Your task to perform on an android device: Add usb-a to the cart on ebay, then select checkout. Image 0: 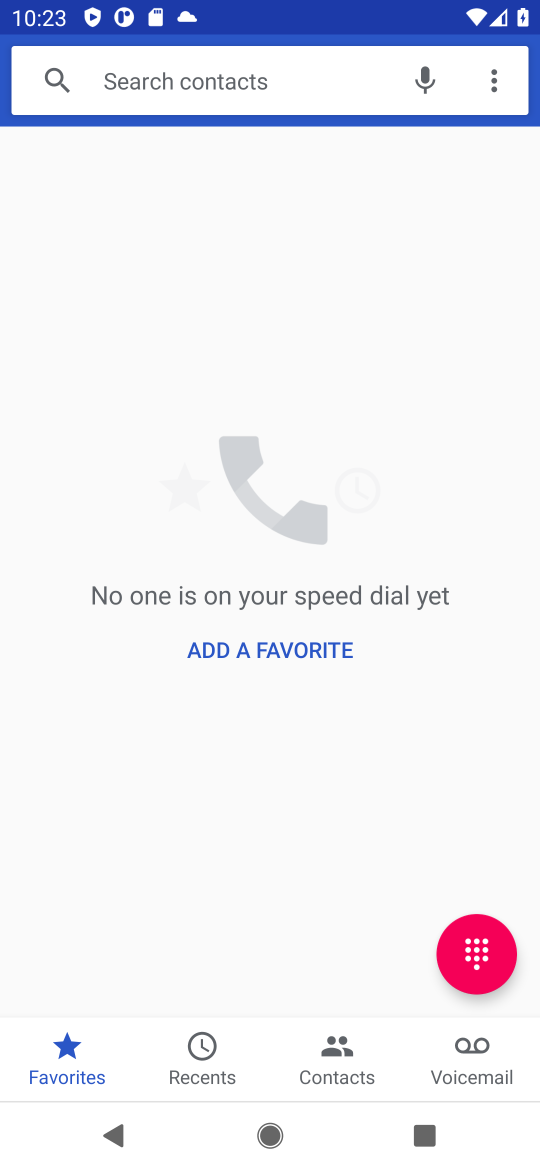
Step 0: press home button
Your task to perform on an android device: Add usb-a to the cart on ebay, then select checkout. Image 1: 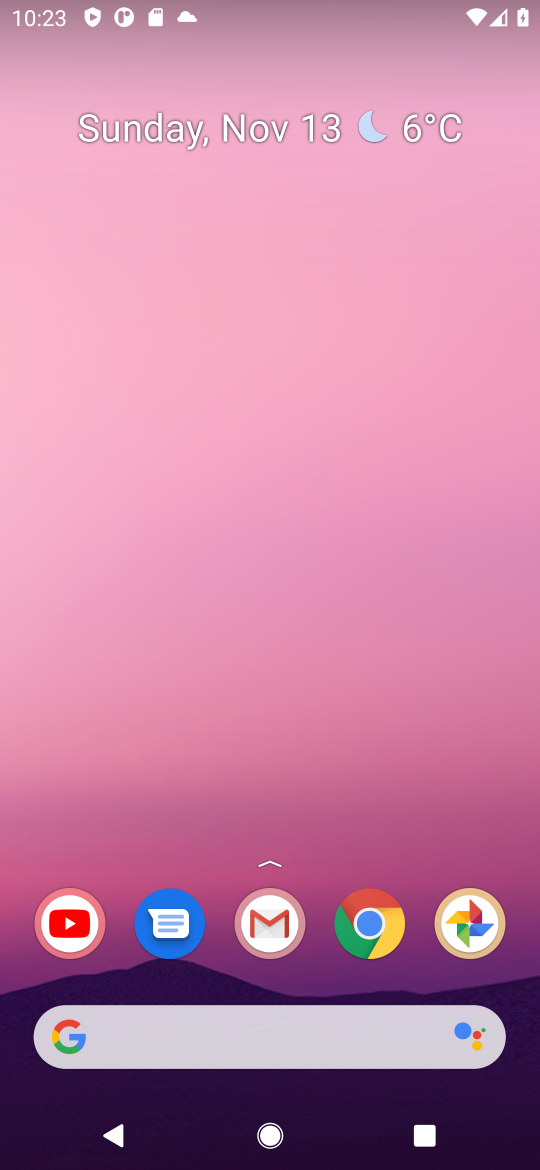
Step 1: click (366, 931)
Your task to perform on an android device: Add usb-a to the cart on ebay, then select checkout. Image 2: 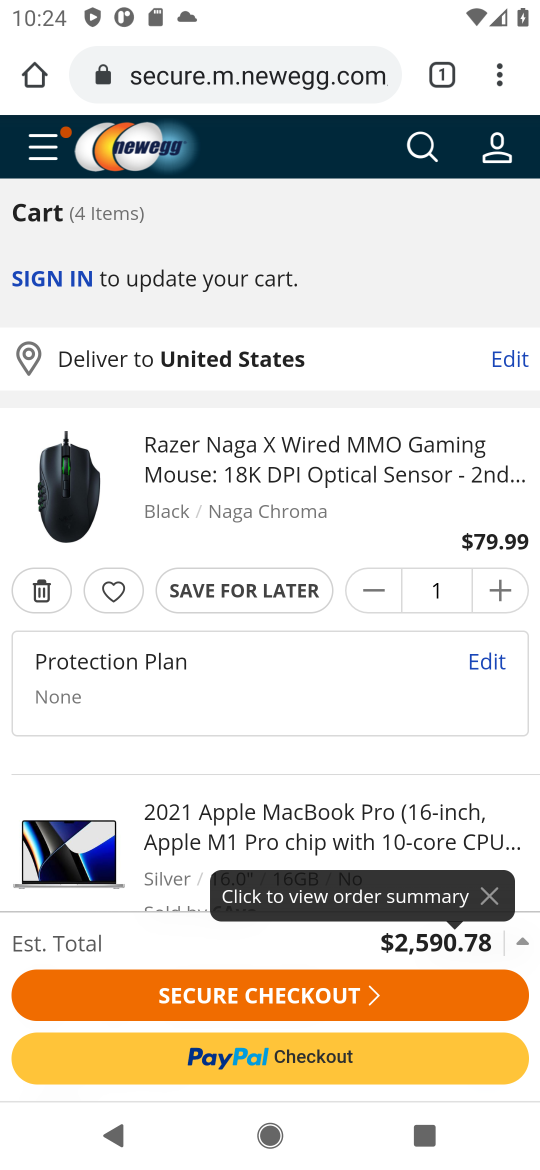
Step 2: click (297, 62)
Your task to perform on an android device: Add usb-a to the cart on ebay, then select checkout. Image 3: 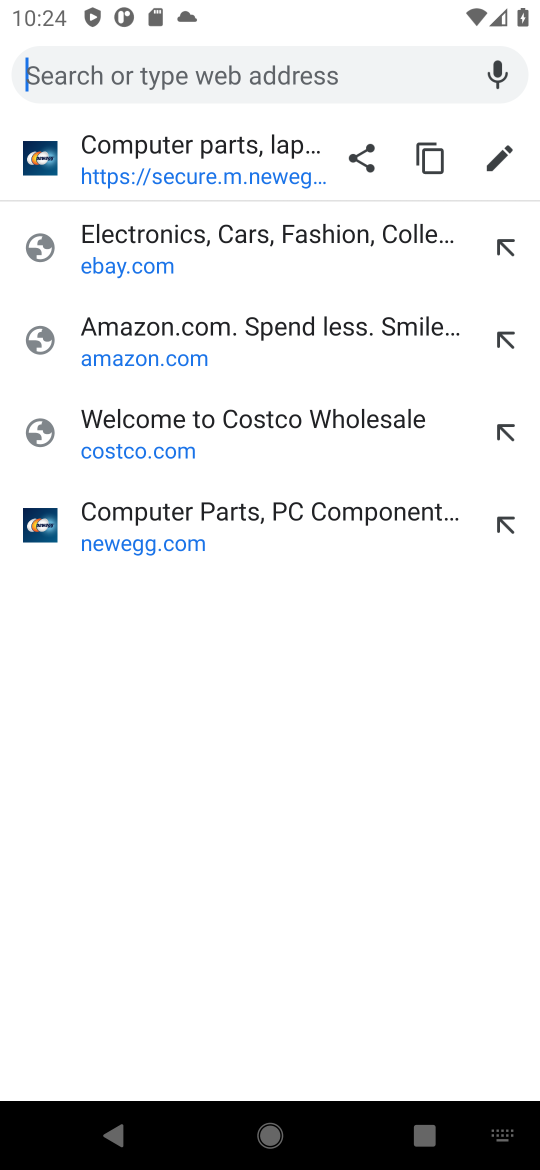
Step 3: click (160, 230)
Your task to perform on an android device: Add usb-a to the cart on ebay, then select checkout. Image 4: 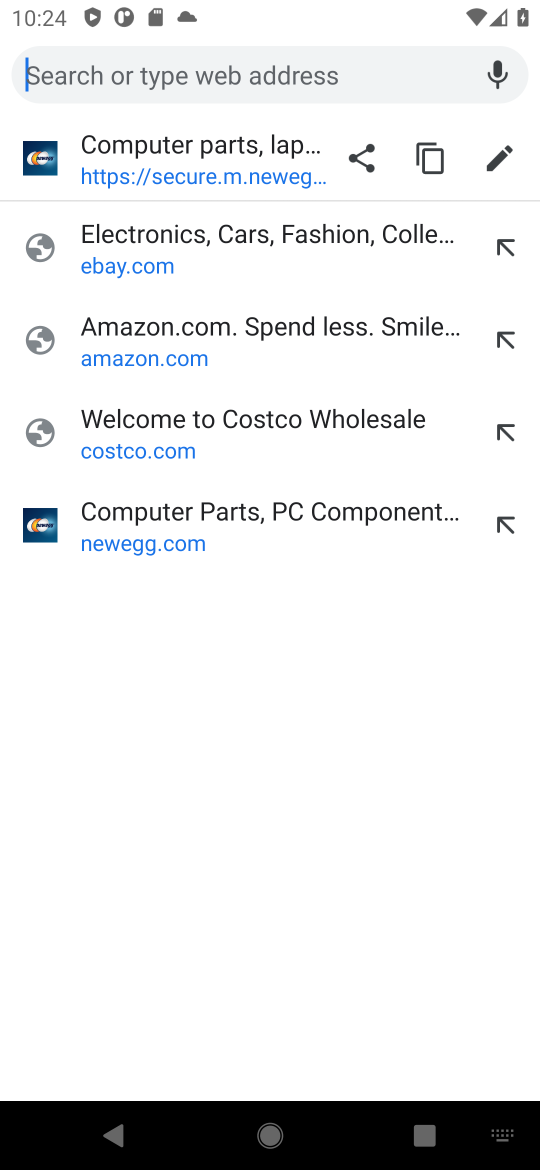
Step 4: type "usb-a "
Your task to perform on an android device: Add usb-a to the cart on ebay, then select checkout. Image 5: 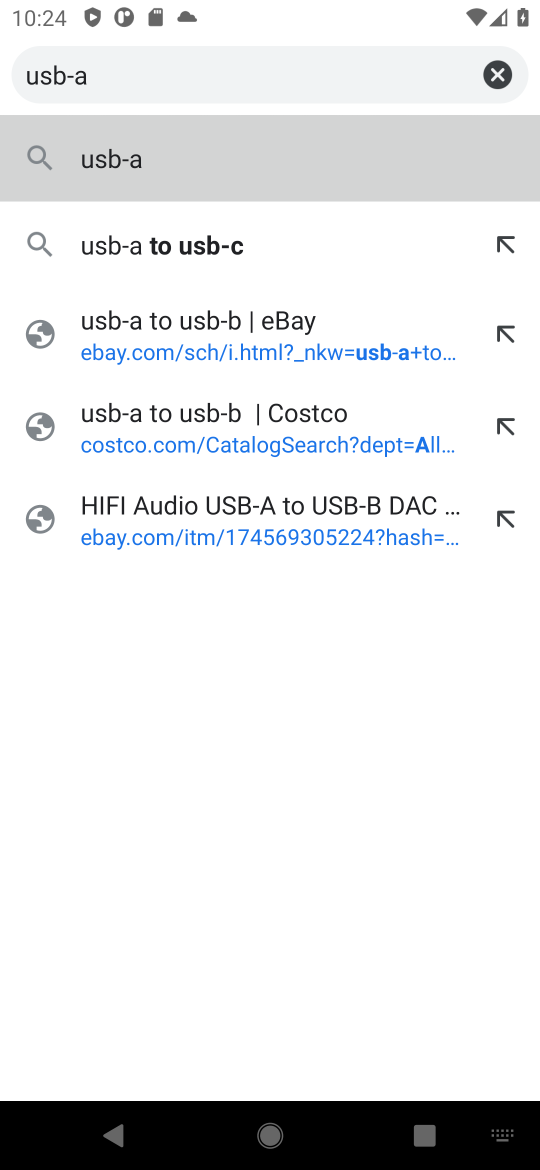
Step 5: press enter
Your task to perform on an android device: Add usb-a to the cart on ebay, then select checkout. Image 6: 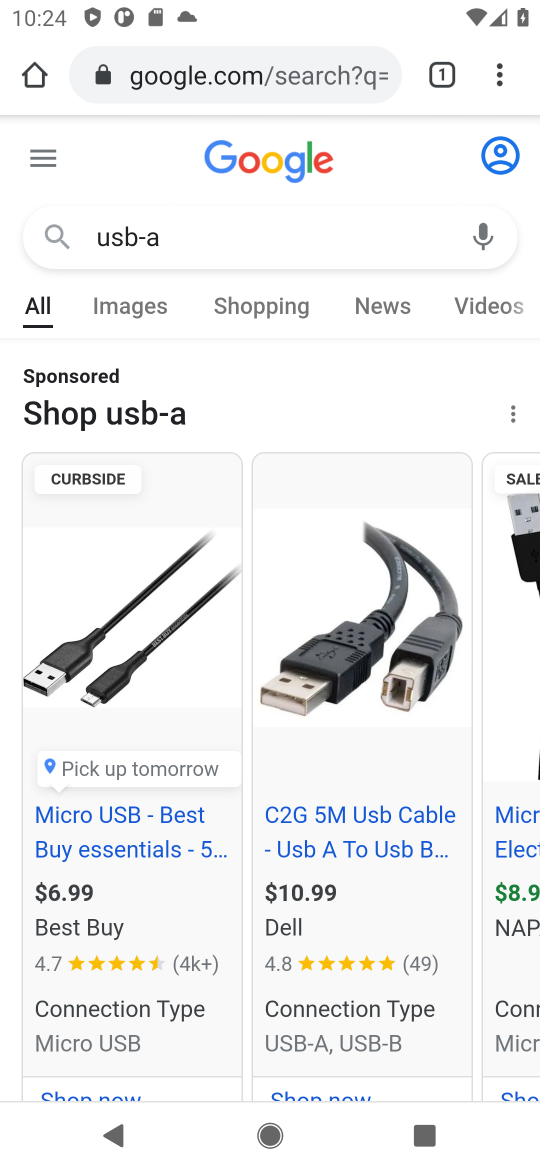
Step 6: click (289, 66)
Your task to perform on an android device: Add usb-a to the cart on ebay, then select checkout. Image 7: 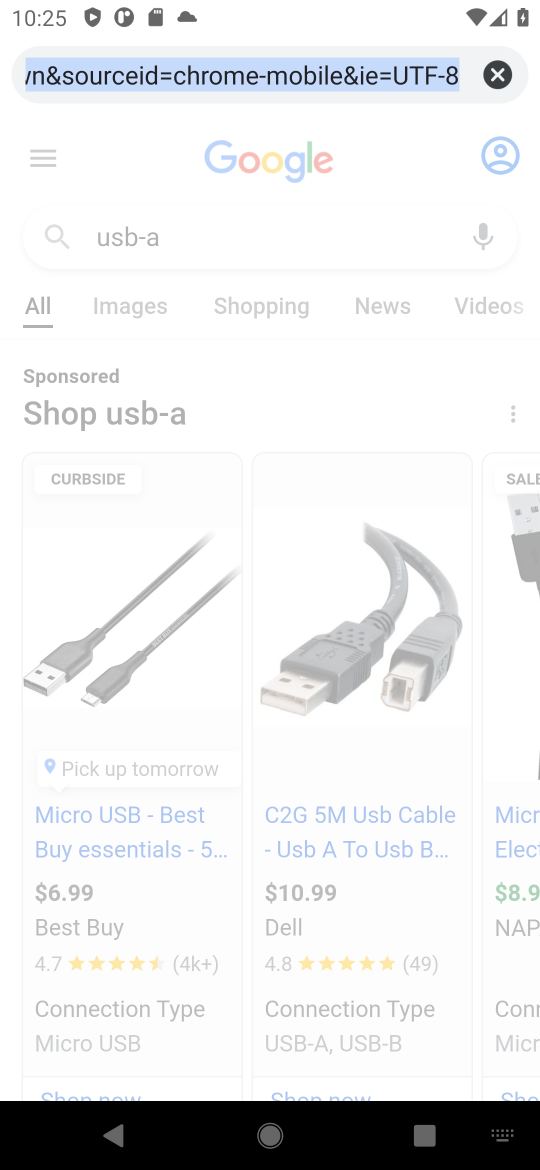
Step 7: click (498, 66)
Your task to perform on an android device: Add usb-a to the cart on ebay, then select checkout. Image 8: 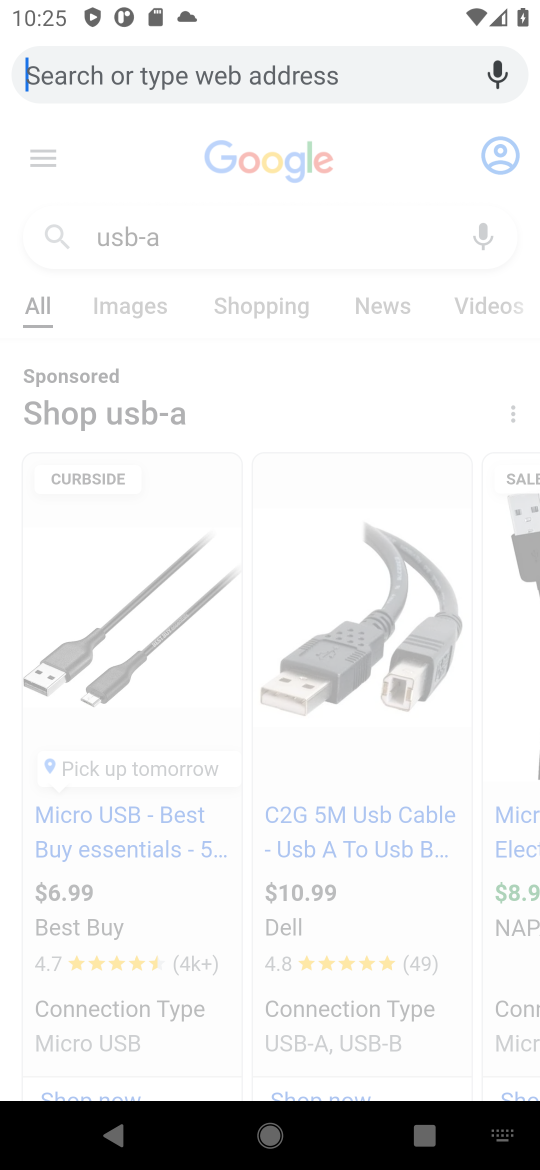
Step 8: click (281, 78)
Your task to perform on an android device: Add usb-a to the cart on ebay, then select checkout. Image 9: 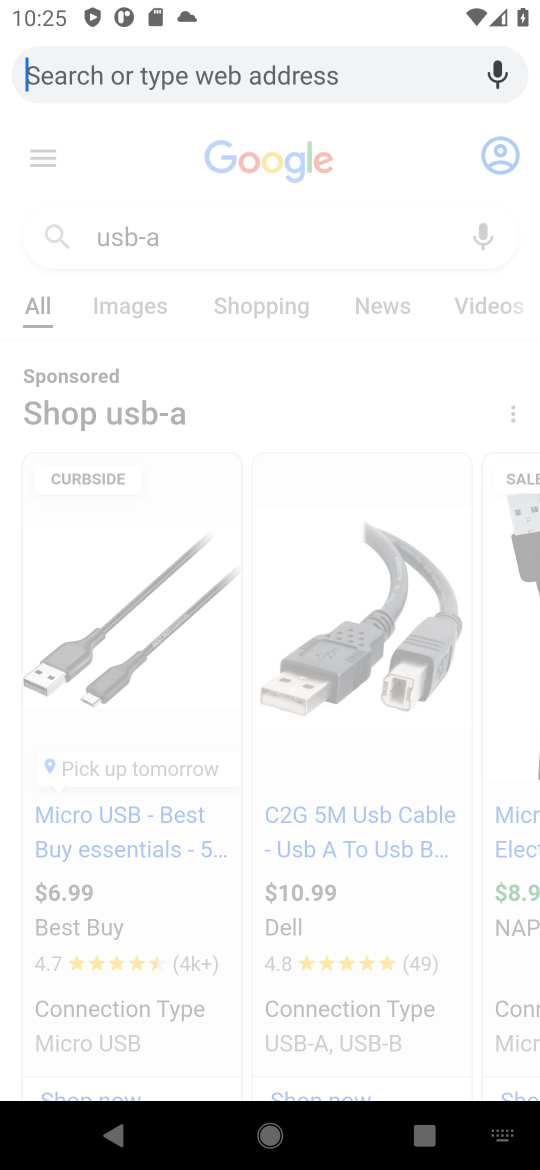
Step 9: press back button
Your task to perform on an android device: Add usb-a to the cart on ebay, then select checkout. Image 10: 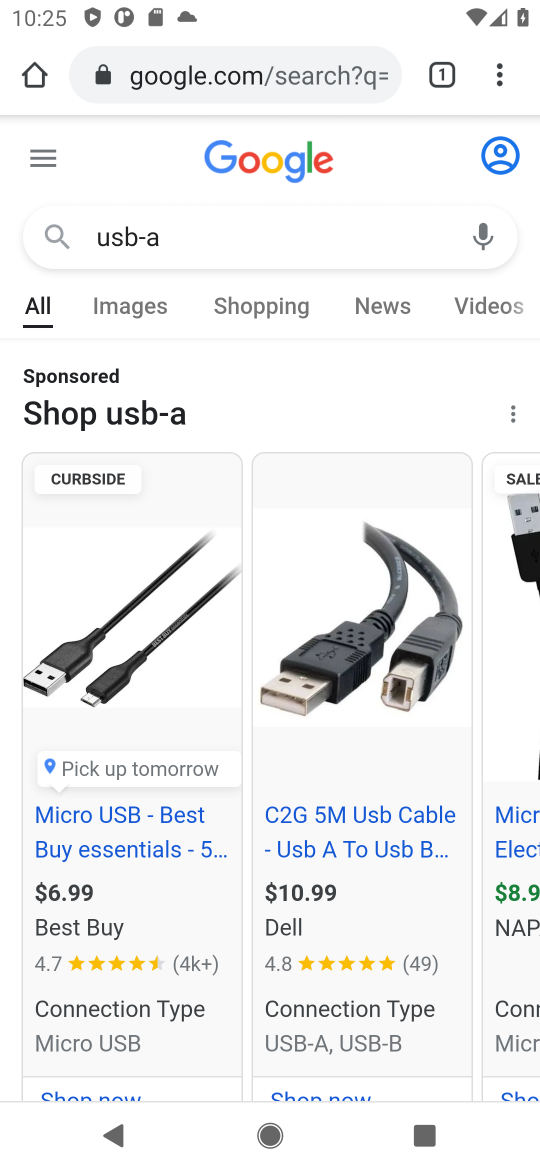
Step 10: press back button
Your task to perform on an android device: Add usb-a to the cart on ebay, then select checkout. Image 11: 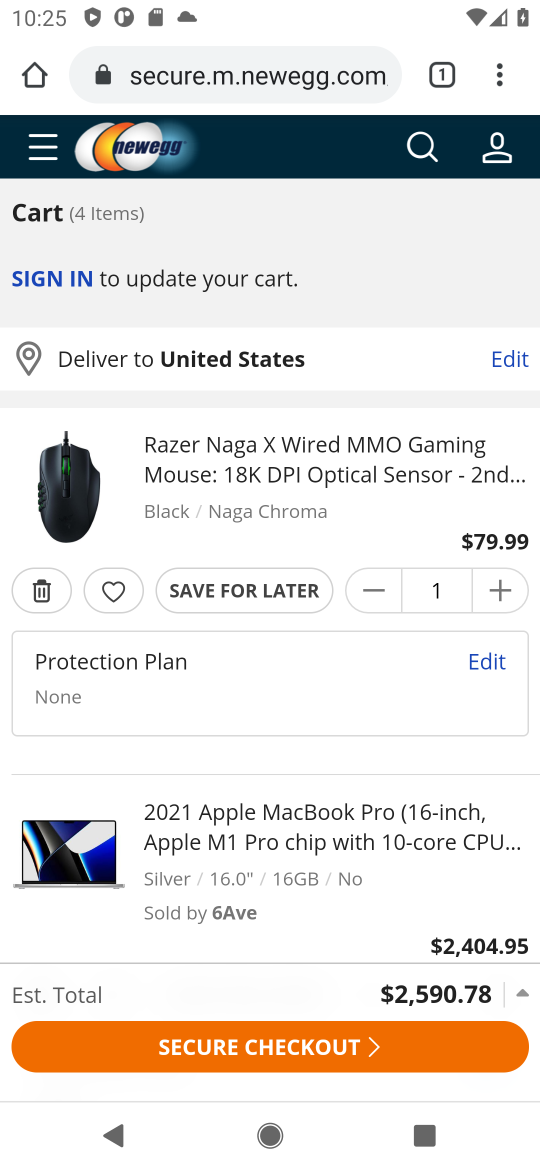
Step 11: click (281, 72)
Your task to perform on an android device: Add usb-a to the cart on ebay, then select checkout. Image 12: 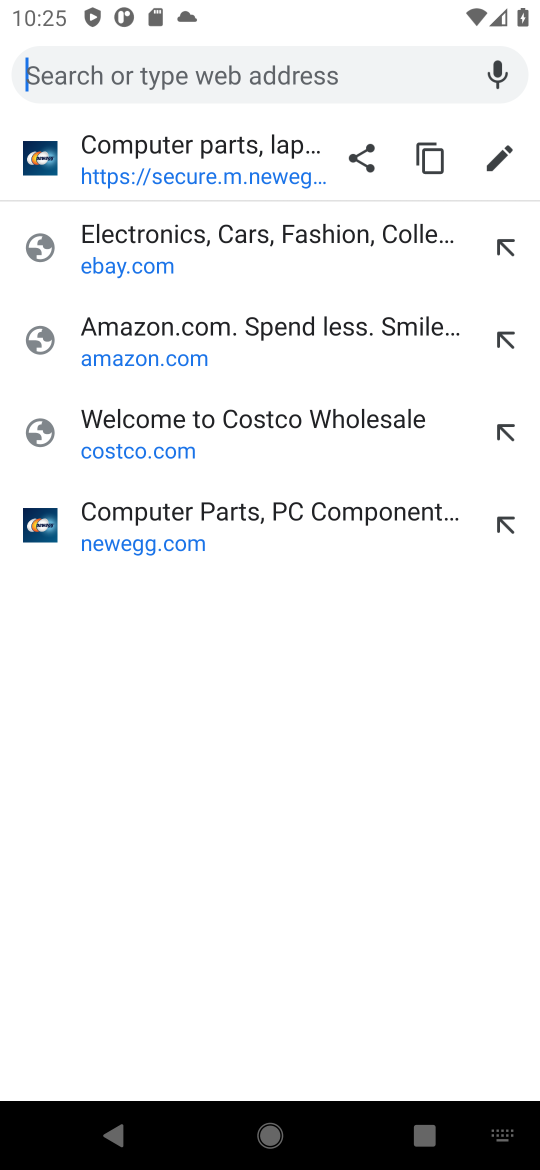
Step 12: click (202, 243)
Your task to perform on an android device: Add usb-a to the cart on ebay, then select checkout. Image 13: 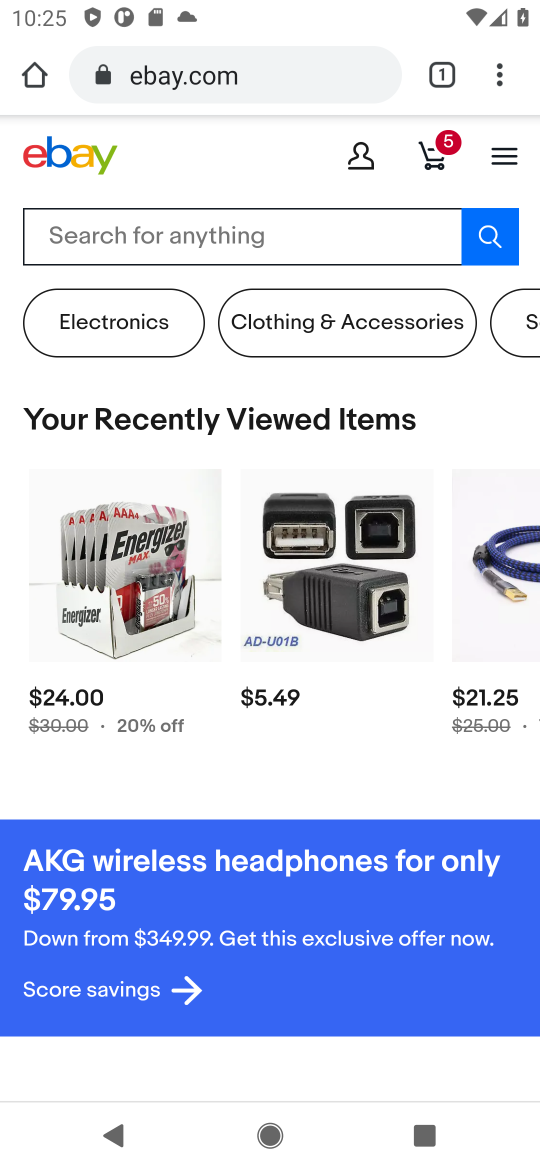
Step 13: click (302, 238)
Your task to perform on an android device: Add usb-a to the cart on ebay, then select checkout. Image 14: 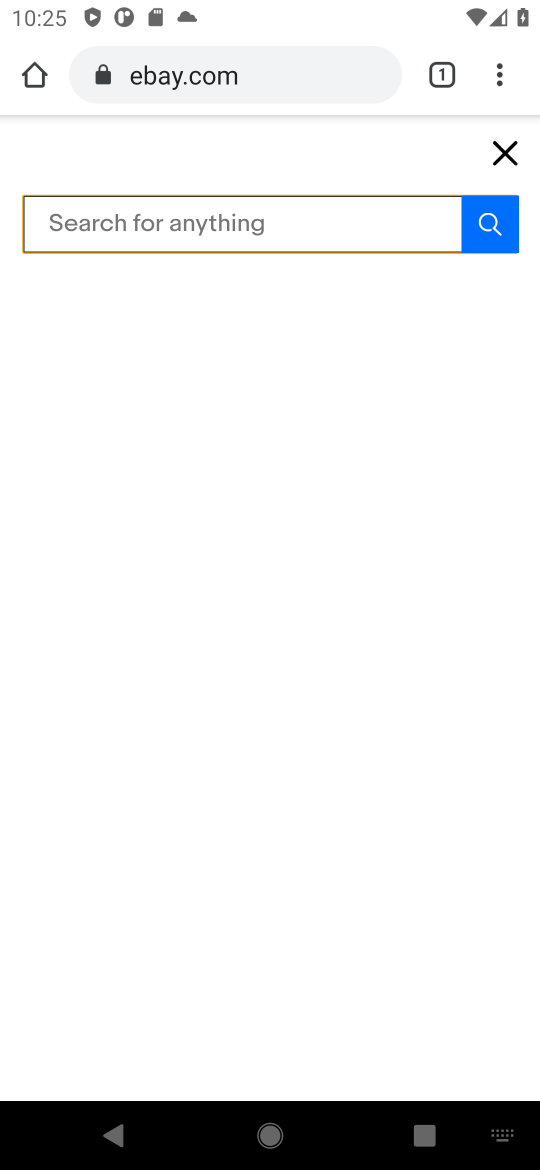
Step 14: type "usb-a"
Your task to perform on an android device: Add usb-a to the cart on ebay, then select checkout. Image 15: 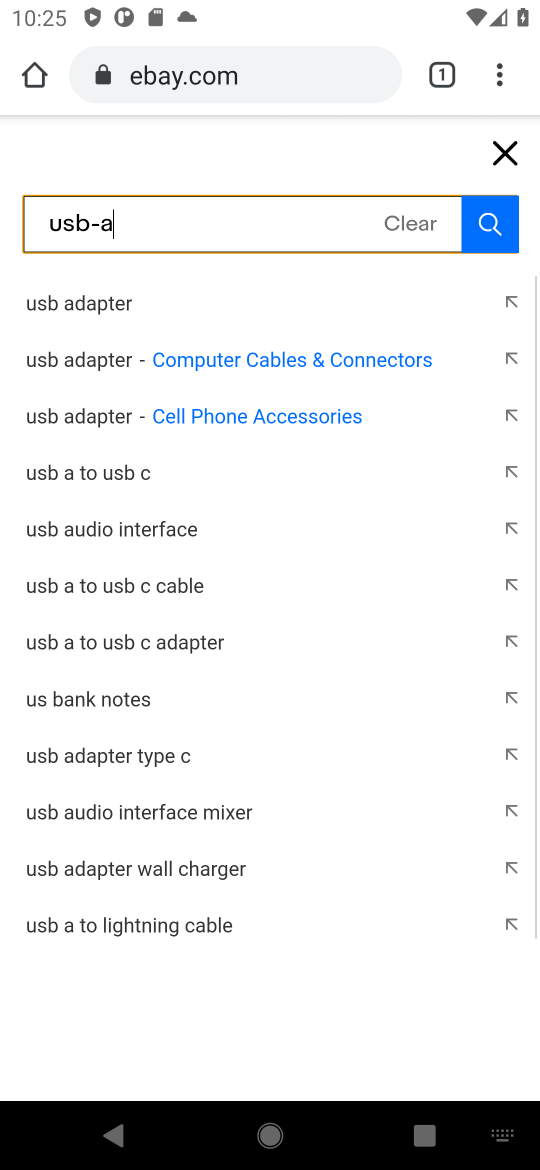
Step 15: press enter
Your task to perform on an android device: Add usb-a to the cart on ebay, then select checkout. Image 16: 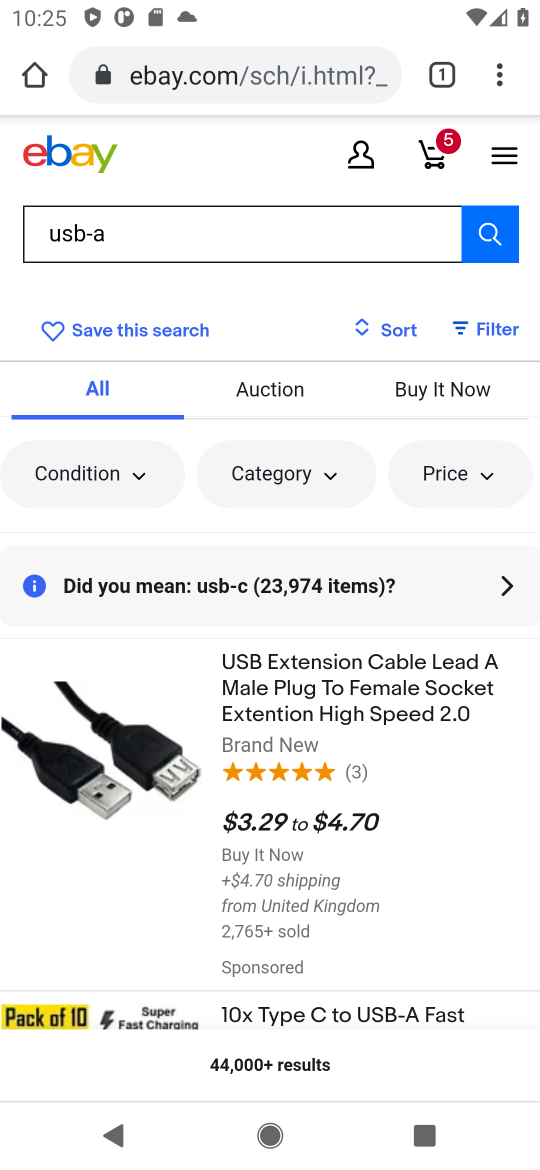
Step 16: drag from (430, 948) to (481, 509)
Your task to perform on an android device: Add usb-a to the cart on ebay, then select checkout. Image 17: 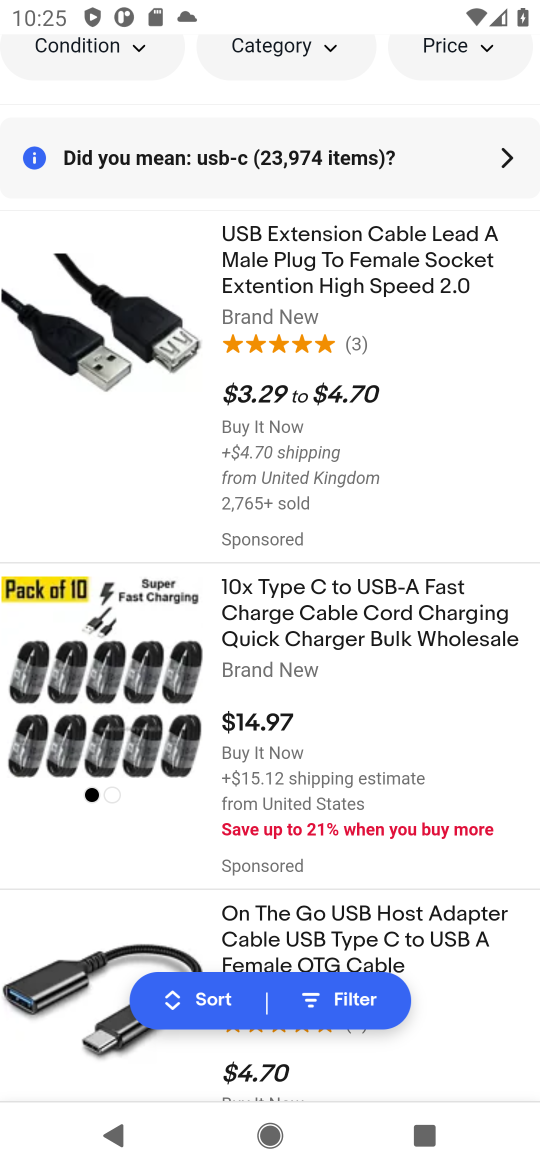
Step 17: click (100, 729)
Your task to perform on an android device: Add usb-a to the cart on ebay, then select checkout. Image 18: 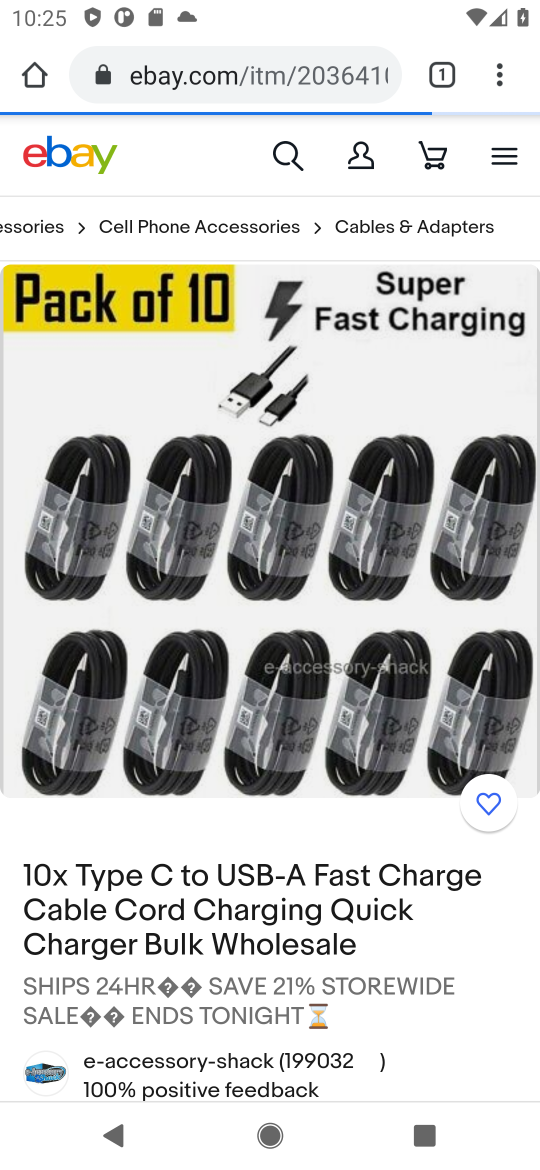
Step 18: press back button
Your task to perform on an android device: Add usb-a to the cart on ebay, then select checkout. Image 19: 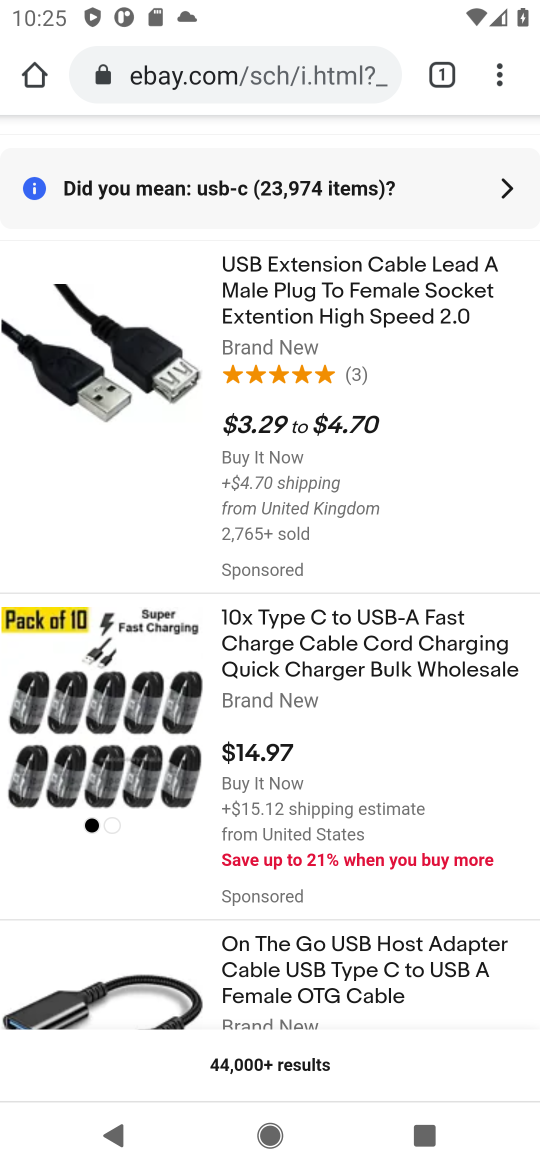
Step 19: drag from (420, 939) to (456, 554)
Your task to perform on an android device: Add usb-a to the cart on ebay, then select checkout. Image 20: 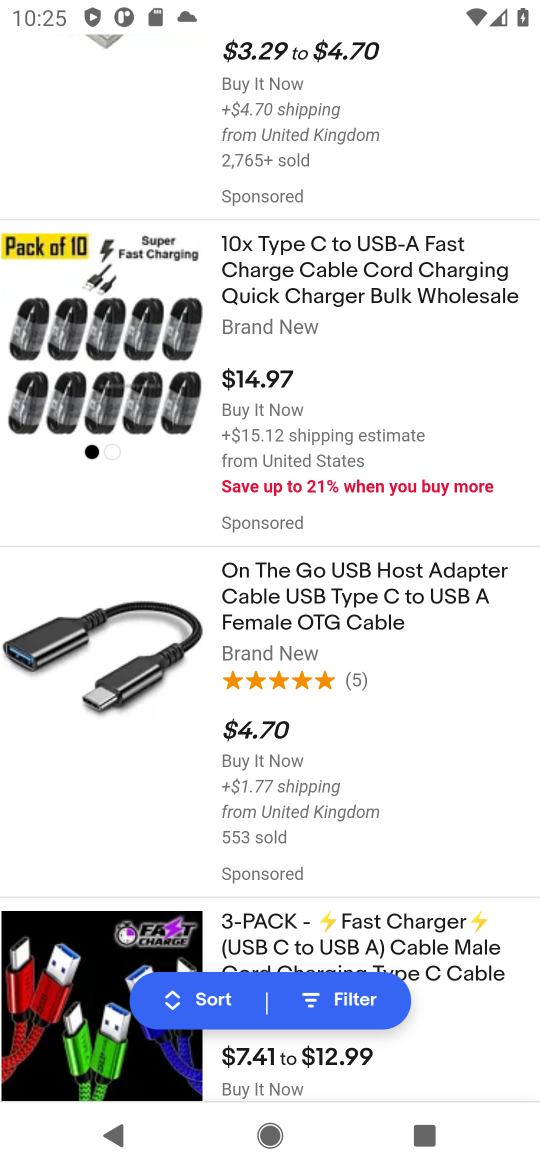
Step 20: drag from (475, 852) to (475, 586)
Your task to perform on an android device: Add usb-a to the cart on ebay, then select checkout. Image 21: 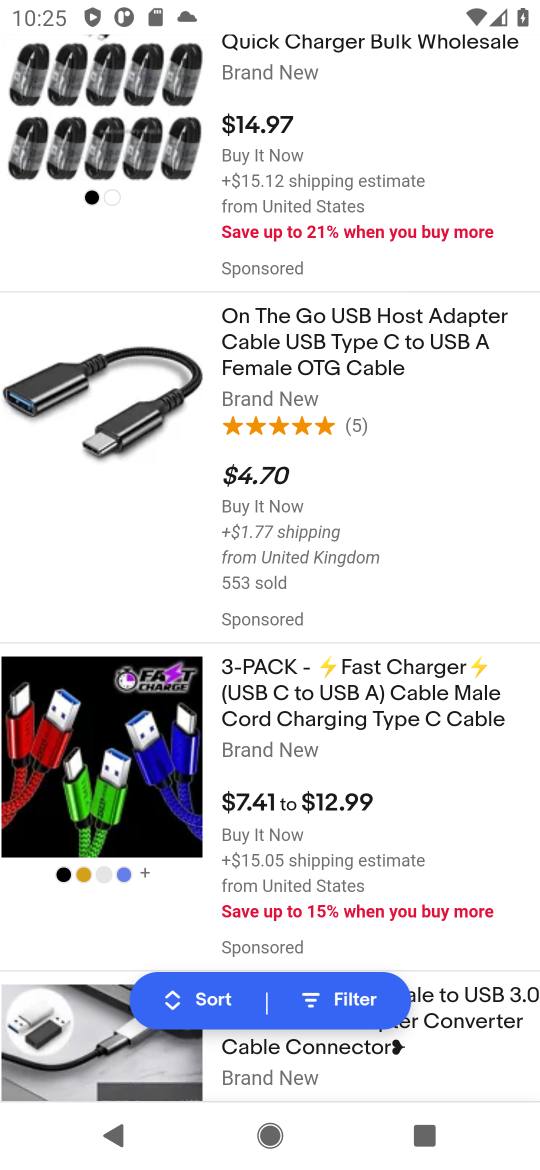
Step 21: drag from (449, 732) to (456, 448)
Your task to perform on an android device: Add usb-a to the cart on ebay, then select checkout. Image 22: 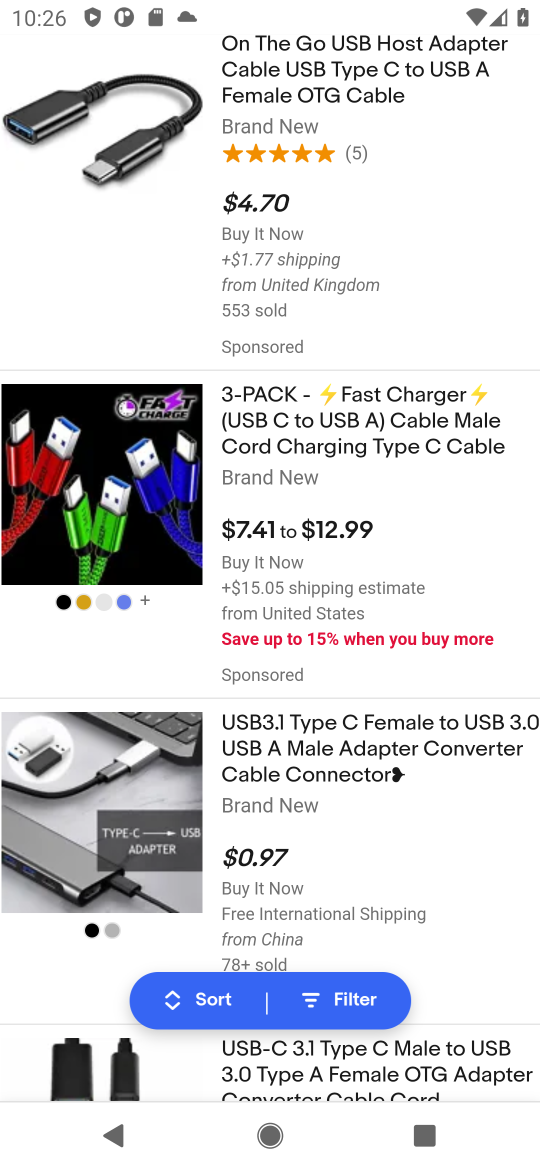
Step 22: drag from (429, 511) to (461, 930)
Your task to perform on an android device: Add usb-a to the cart on ebay, then select checkout. Image 23: 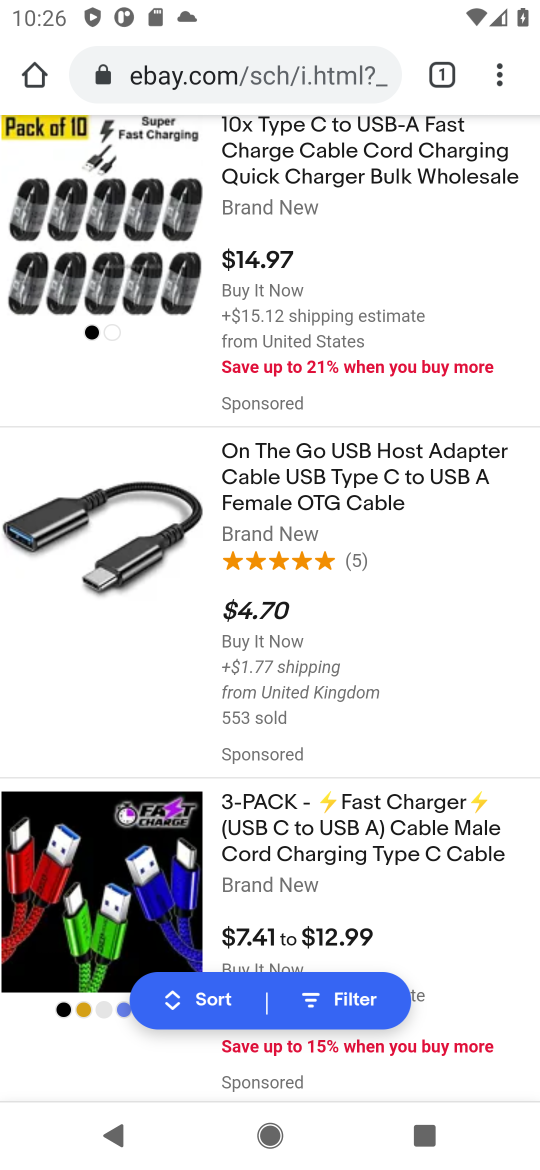
Step 23: drag from (422, 756) to (489, 299)
Your task to perform on an android device: Add usb-a to the cart on ebay, then select checkout. Image 24: 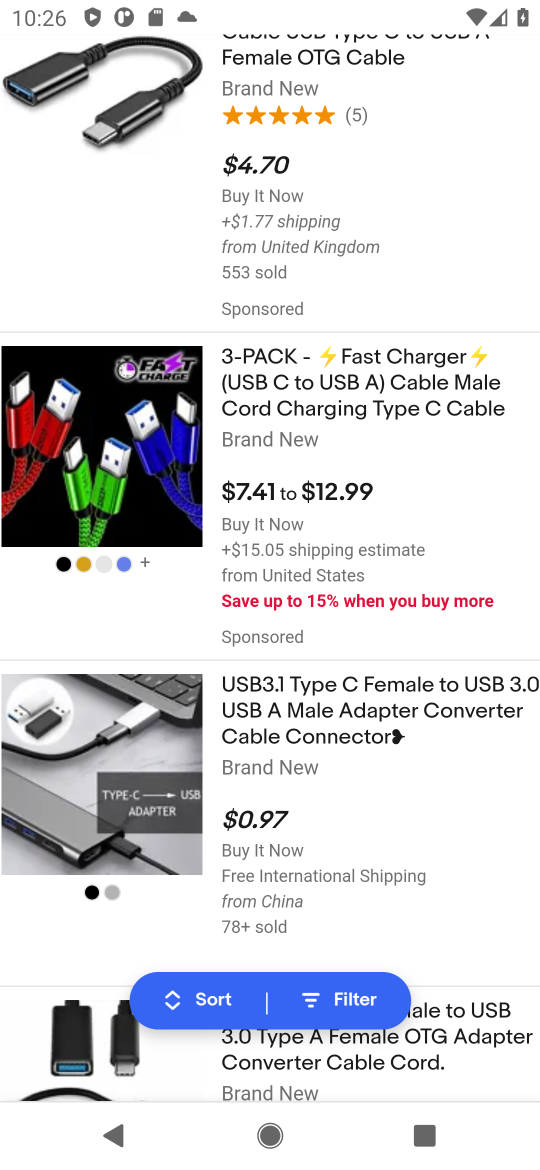
Step 24: drag from (475, 814) to (490, 455)
Your task to perform on an android device: Add usb-a to the cart on ebay, then select checkout. Image 25: 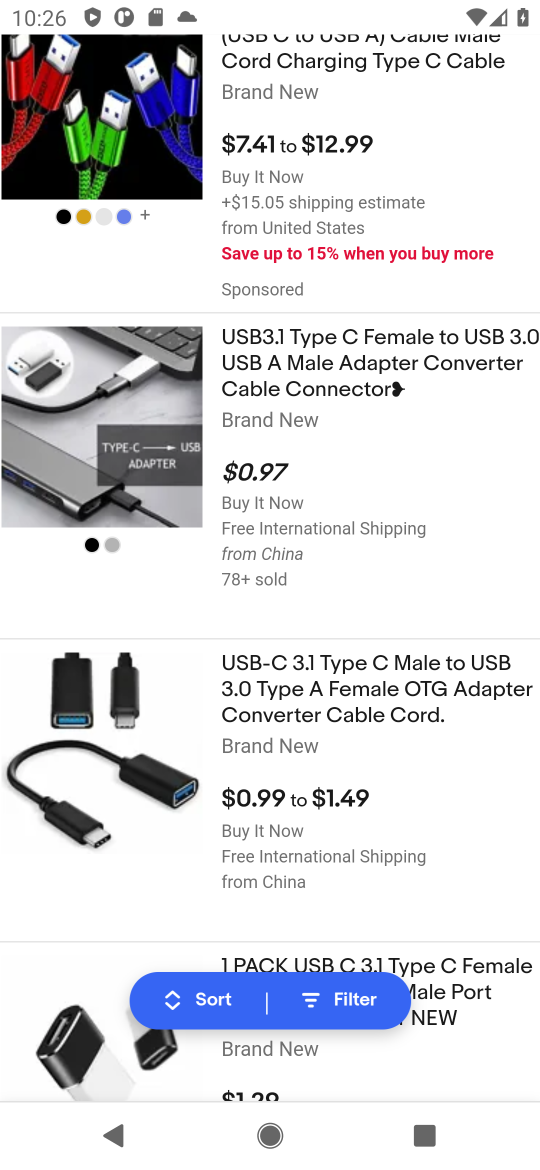
Step 25: drag from (469, 853) to (488, 587)
Your task to perform on an android device: Add usb-a to the cart on ebay, then select checkout. Image 26: 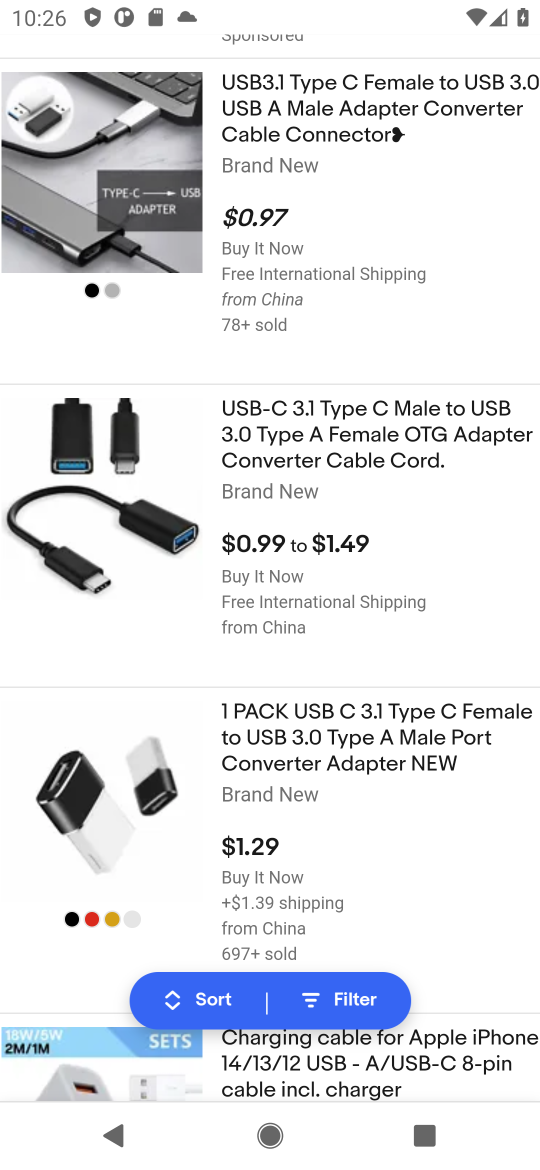
Step 26: drag from (436, 901) to (458, 458)
Your task to perform on an android device: Add usb-a to the cart on ebay, then select checkout. Image 27: 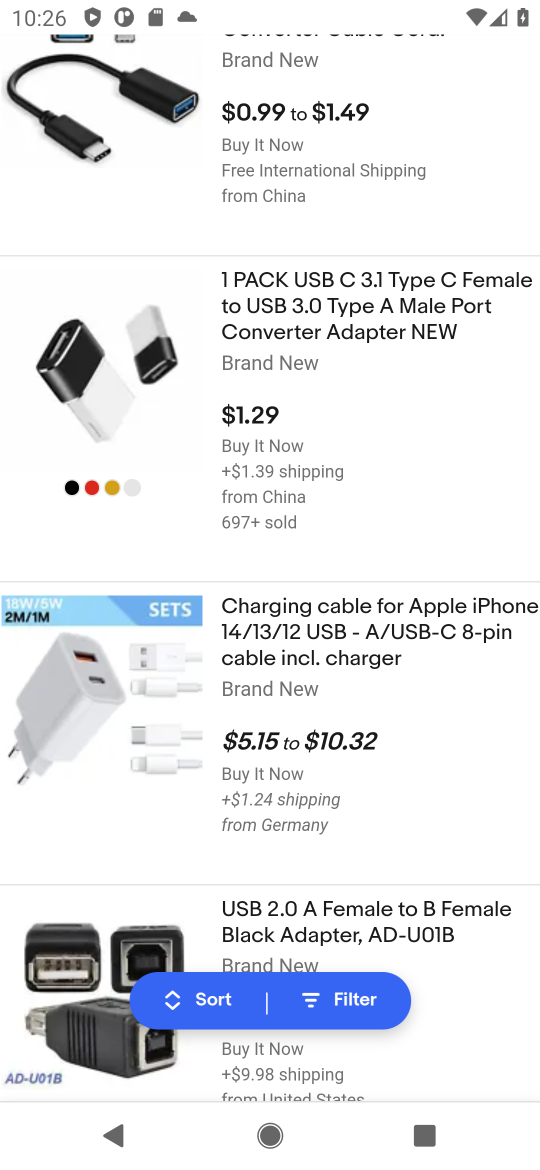
Step 27: click (113, 954)
Your task to perform on an android device: Add usb-a to the cart on ebay, then select checkout. Image 28: 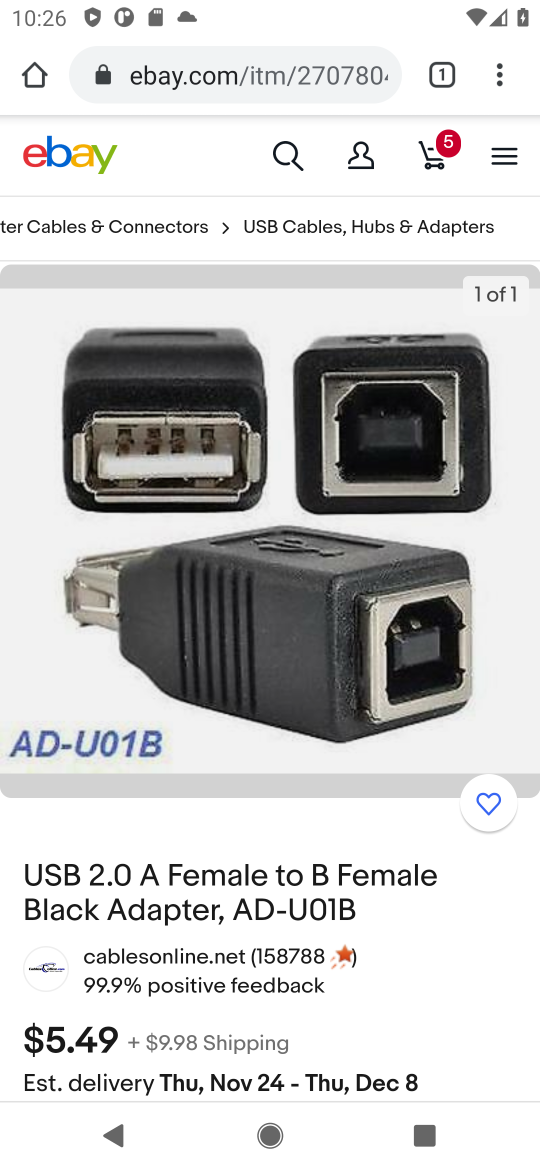
Step 28: drag from (307, 1048) to (430, 364)
Your task to perform on an android device: Add usb-a to the cart on ebay, then select checkout. Image 29: 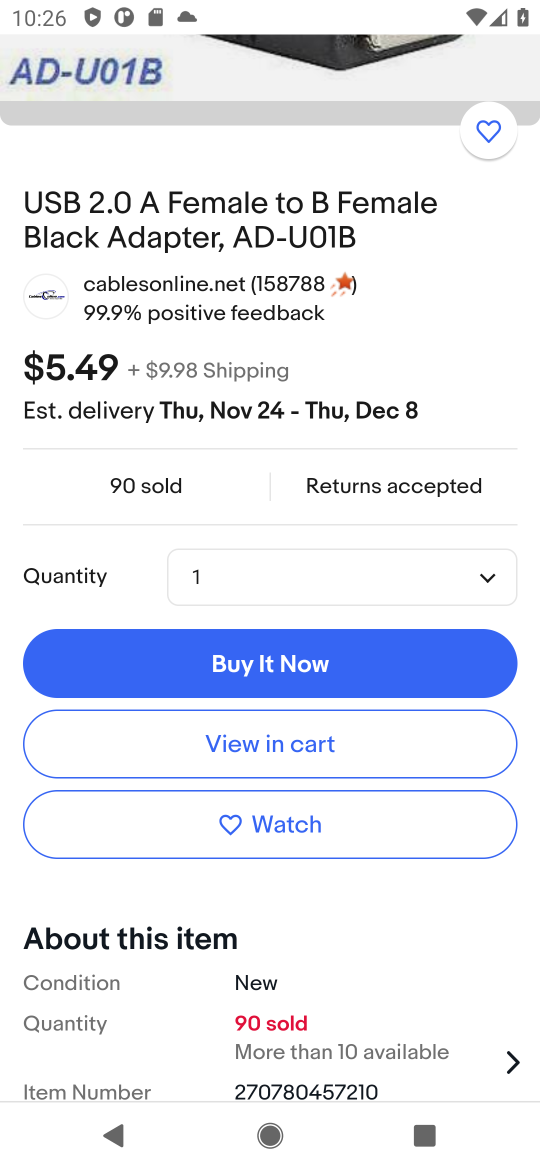
Step 29: click (331, 754)
Your task to perform on an android device: Add usb-a to the cart on ebay, then select checkout. Image 30: 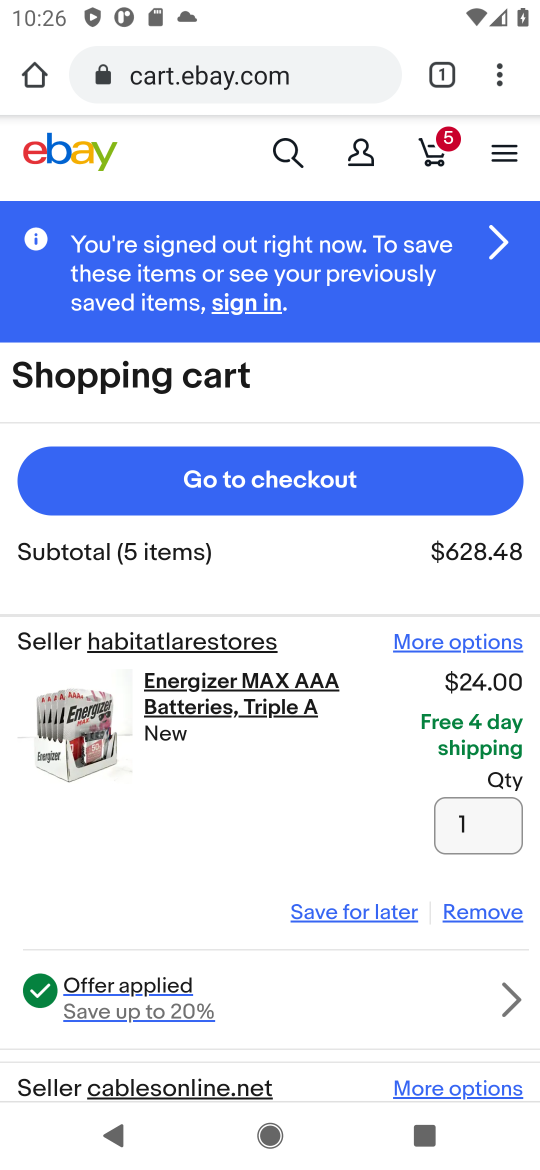
Step 30: click (312, 476)
Your task to perform on an android device: Add usb-a to the cart on ebay, then select checkout. Image 31: 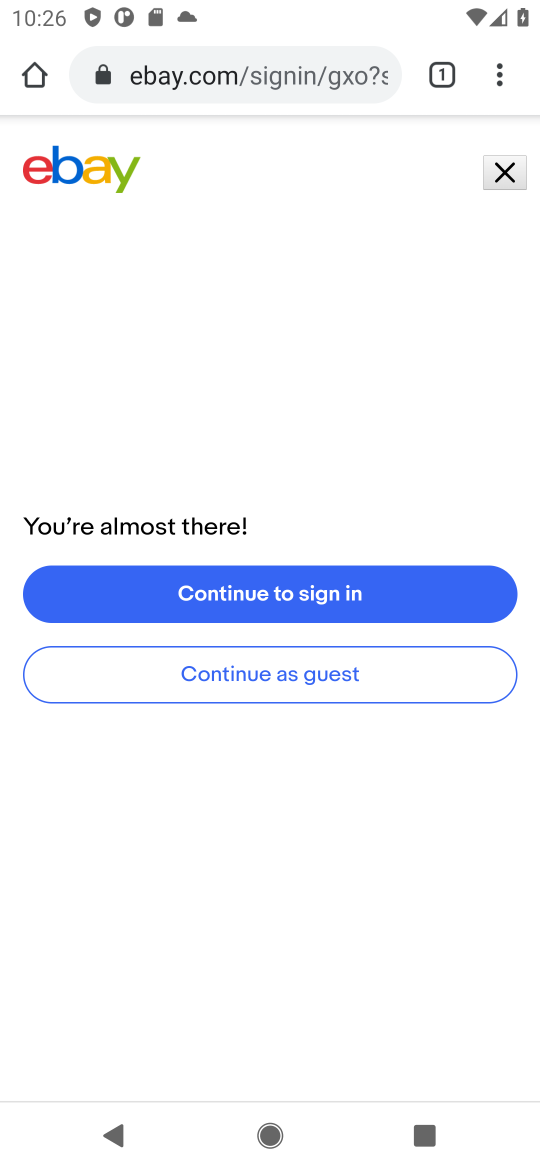
Step 31: task complete